Your task to perform on an android device: Open sound settings Image 0: 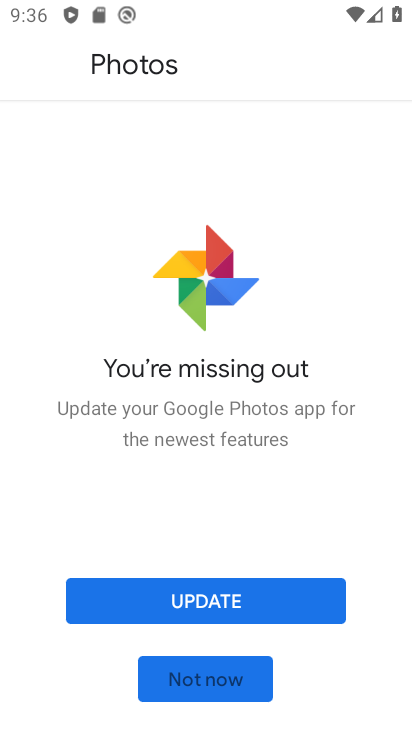
Step 0: press home button
Your task to perform on an android device: Open sound settings Image 1: 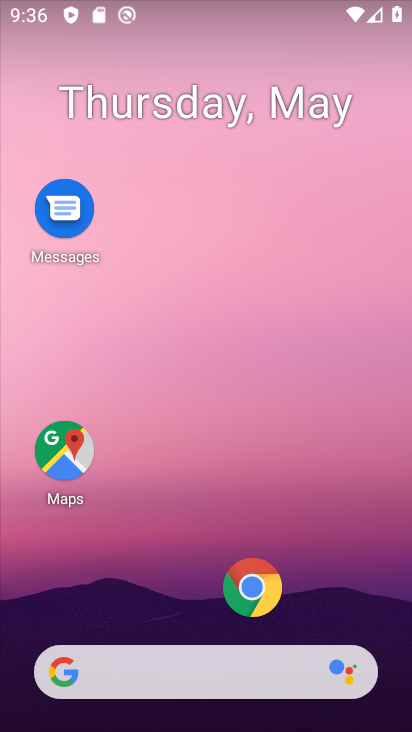
Step 1: drag from (205, 627) to (79, 93)
Your task to perform on an android device: Open sound settings Image 2: 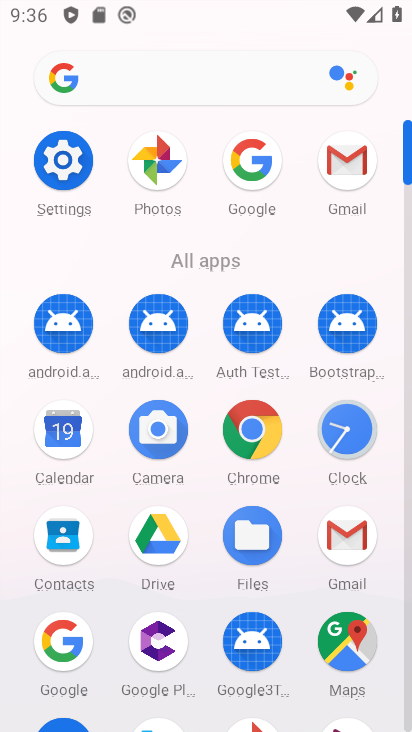
Step 2: click (65, 164)
Your task to perform on an android device: Open sound settings Image 3: 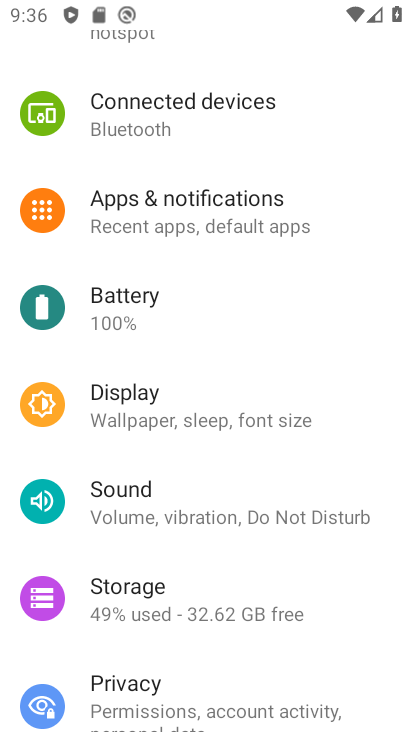
Step 3: click (151, 505)
Your task to perform on an android device: Open sound settings Image 4: 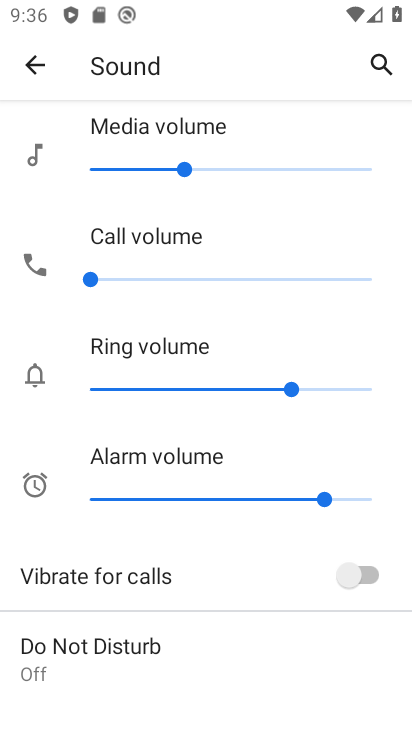
Step 4: task complete